Your task to perform on an android device: Empty the shopping cart on costco. Image 0: 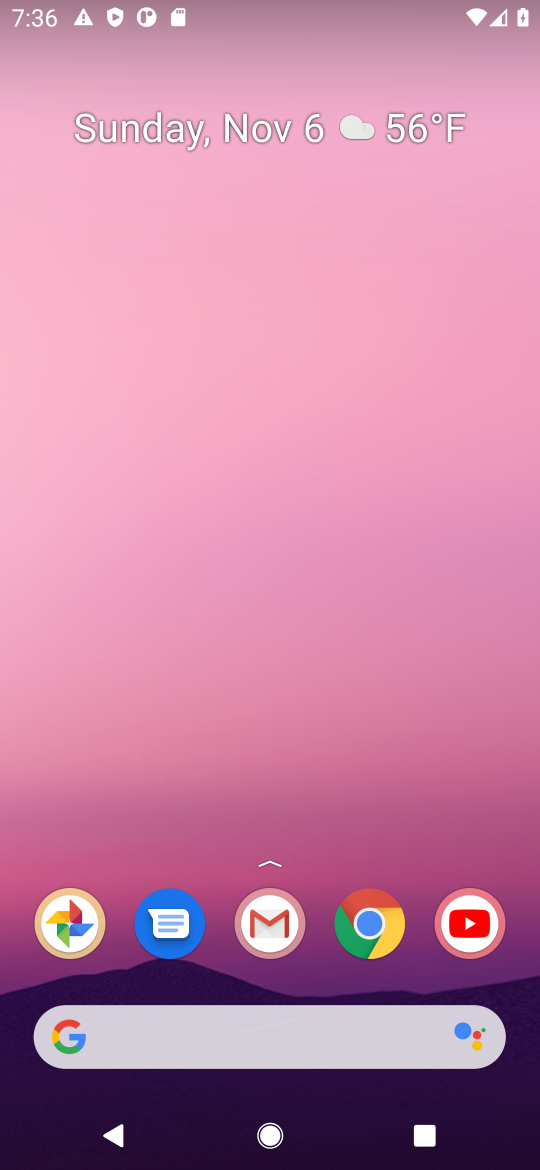
Step 0: click (371, 940)
Your task to perform on an android device: Empty the shopping cart on costco. Image 1: 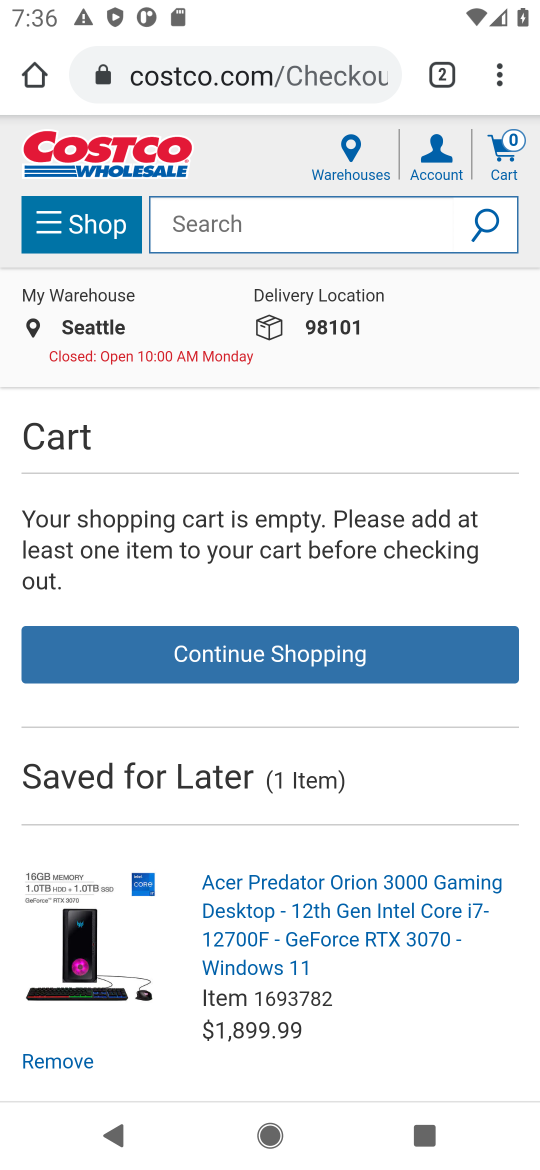
Step 1: task complete